Your task to perform on an android device: Show the shopping cart on newegg.com. Search for usb-a on newegg.com, select the first entry, and add it to the cart. Image 0: 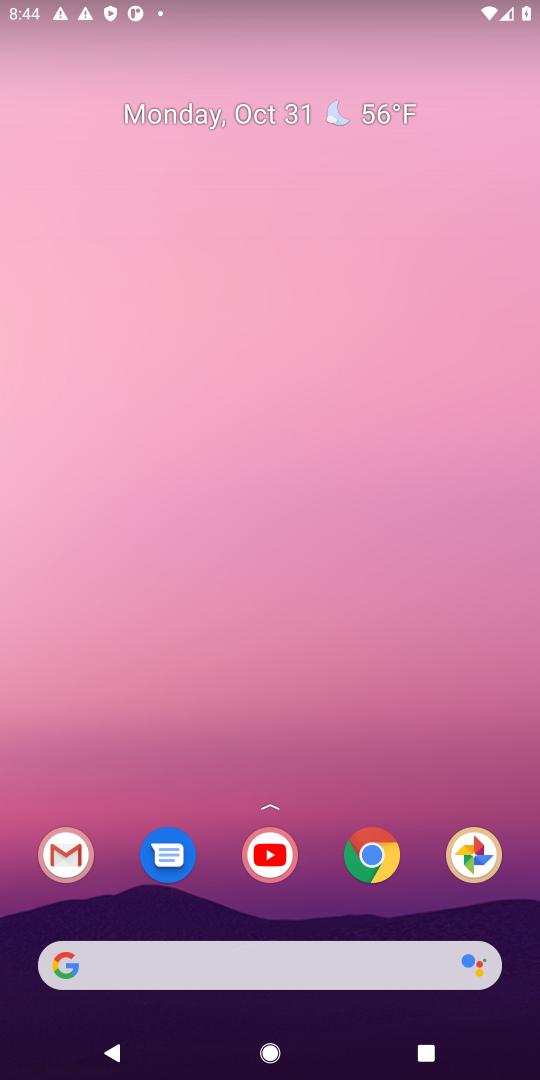
Step 0: press home button
Your task to perform on an android device: Show the shopping cart on newegg.com. Search for usb-a on newegg.com, select the first entry, and add it to the cart. Image 1: 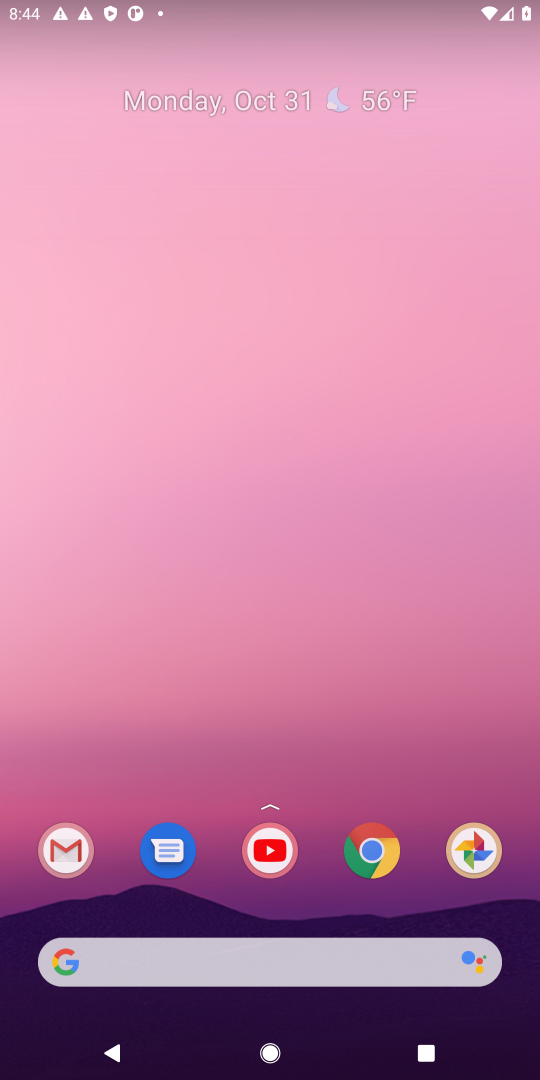
Step 1: click (276, 961)
Your task to perform on an android device: Show the shopping cart on newegg.com. Search for usb-a on newegg.com, select the first entry, and add it to the cart. Image 2: 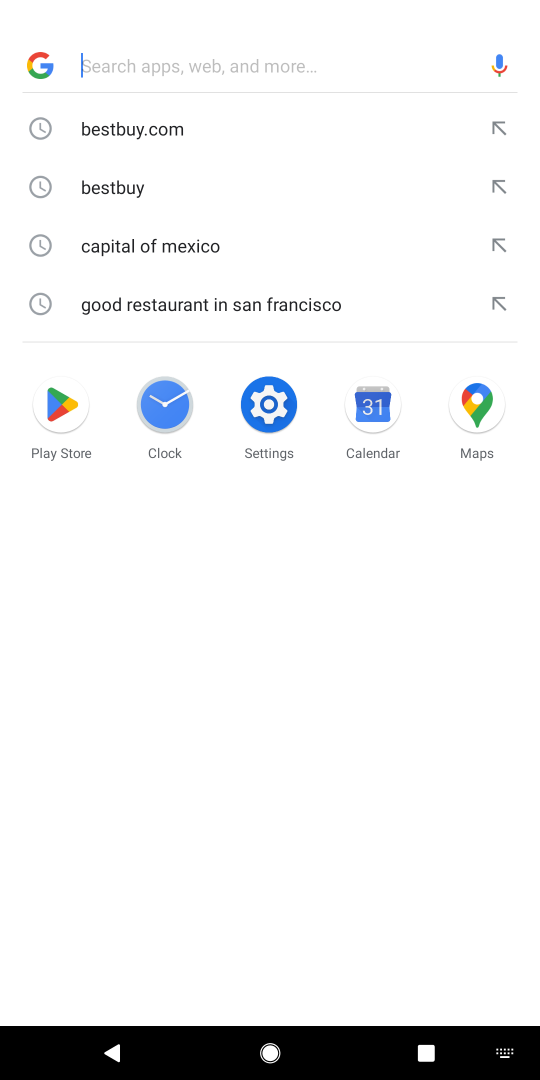
Step 2: type "newegg"
Your task to perform on an android device: Show the shopping cart on newegg.com. Search for usb-a on newegg.com, select the first entry, and add it to the cart. Image 3: 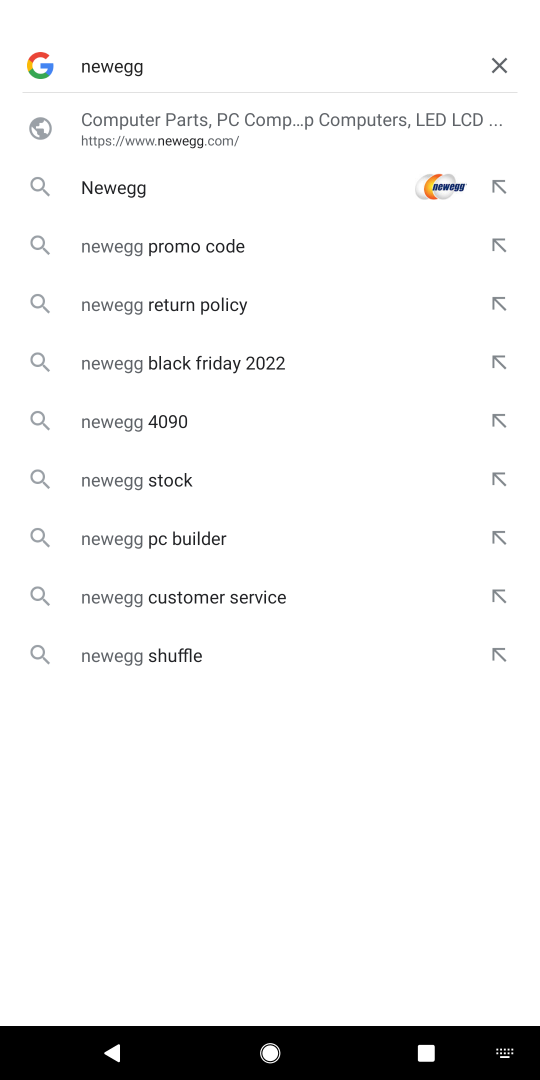
Step 3: click (170, 119)
Your task to perform on an android device: Show the shopping cart on newegg.com. Search for usb-a on newegg.com, select the first entry, and add it to the cart. Image 4: 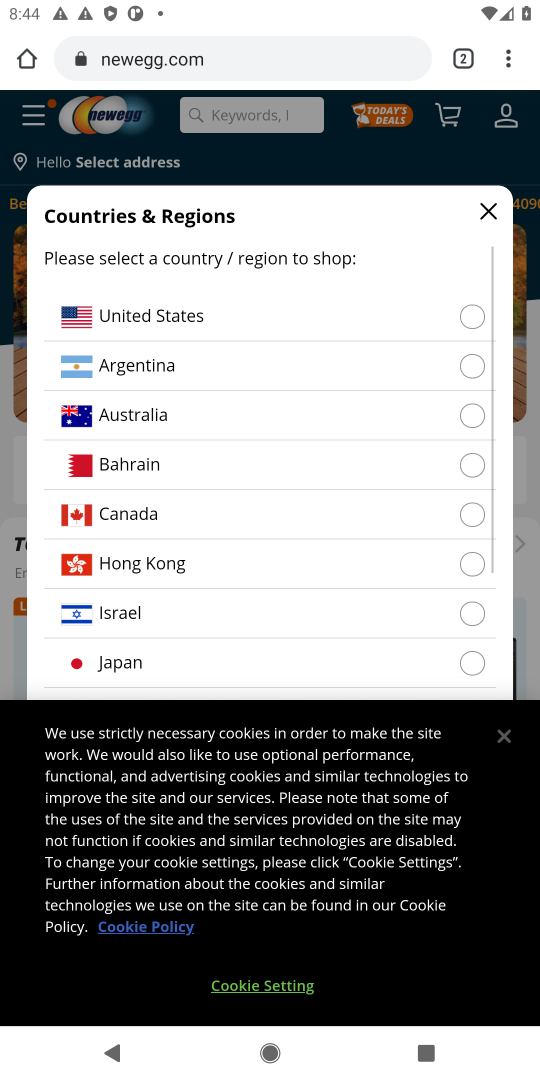
Step 4: click (233, 316)
Your task to perform on an android device: Show the shopping cart on newegg.com. Search for usb-a on newegg.com, select the first entry, and add it to the cart. Image 5: 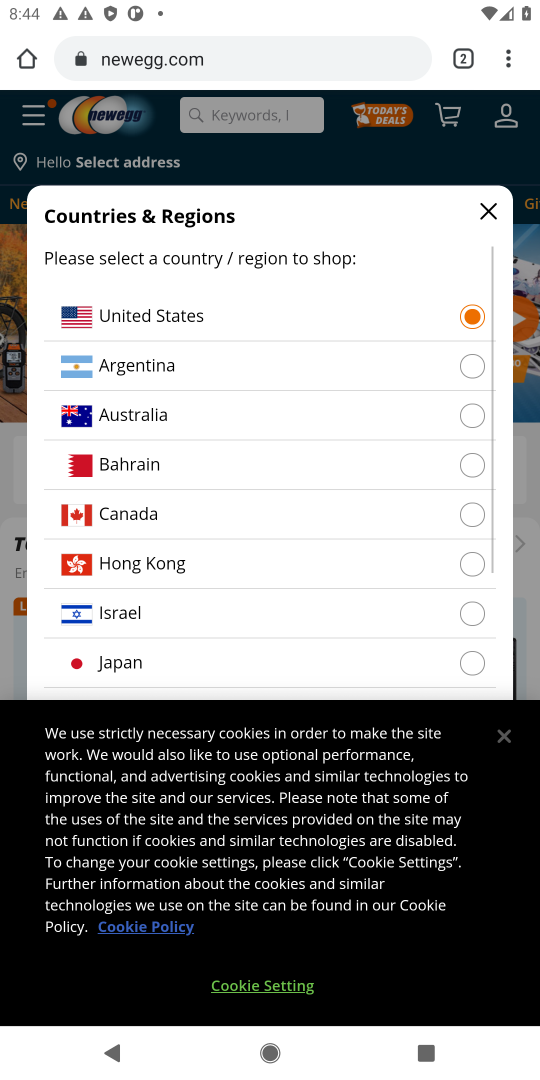
Step 5: click (503, 743)
Your task to perform on an android device: Show the shopping cart on newegg.com. Search for usb-a on newegg.com, select the first entry, and add it to the cart. Image 6: 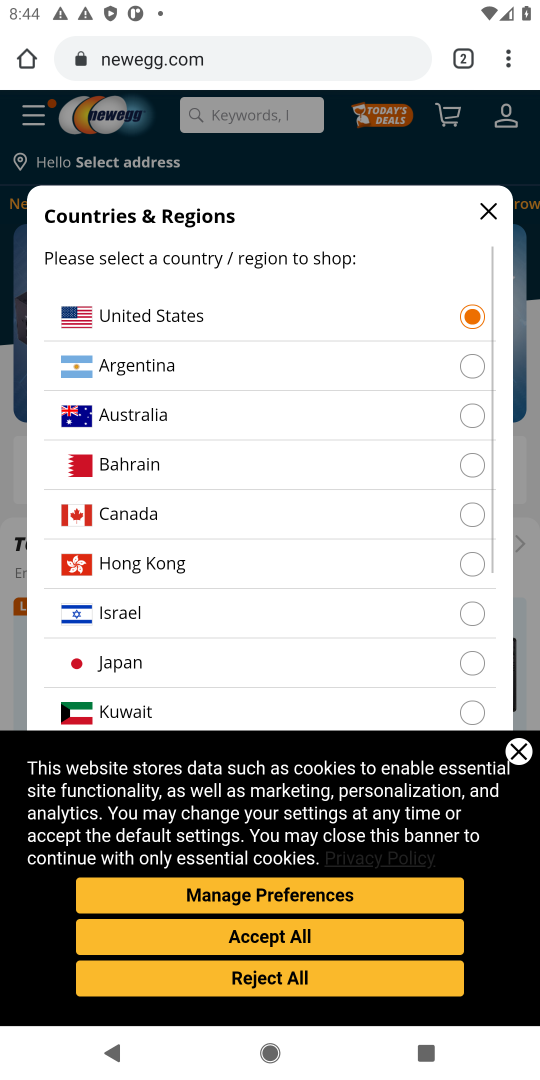
Step 6: click (262, 938)
Your task to perform on an android device: Show the shopping cart on newegg.com. Search for usb-a on newegg.com, select the first entry, and add it to the cart. Image 7: 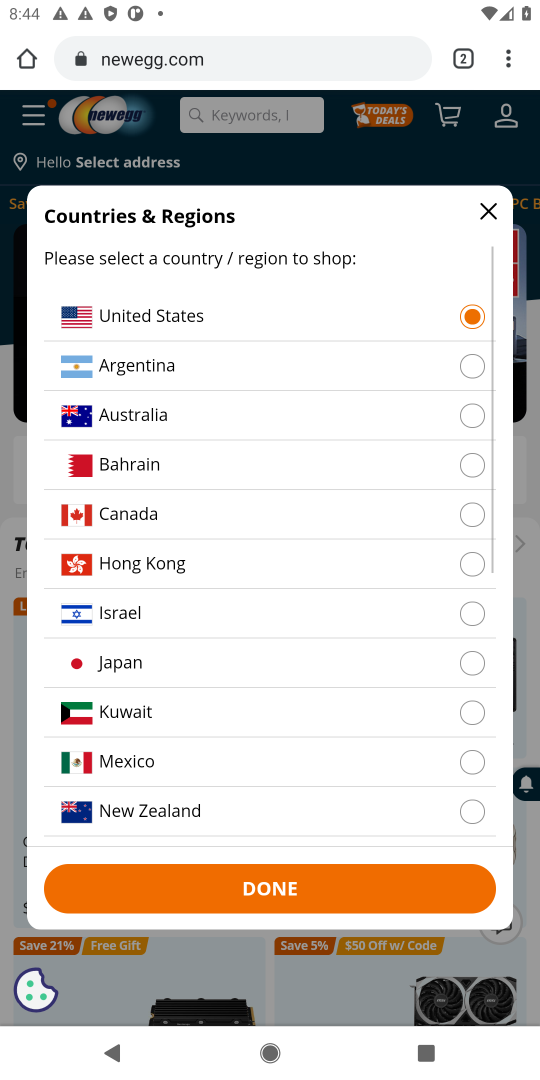
Step 7: click (264, 905)
Your task to perform on an android device: Show the shopping cart on newegg.com. Search for usb-a on newegg.com, select the first entry, and add it to the cart. Image 8: 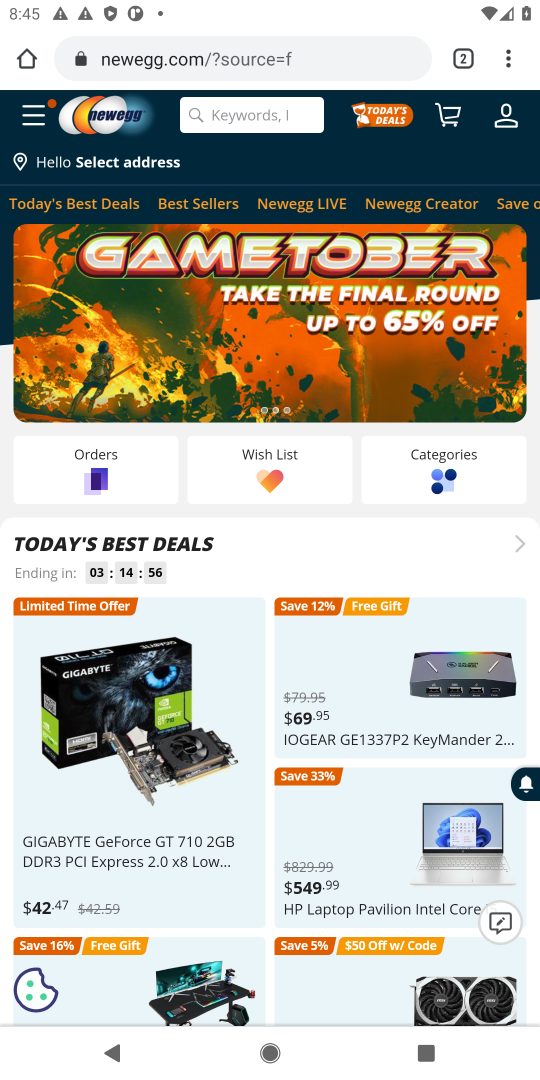
Step 8: click (253, 119)
Your task to perform on an android device: Show the shopping cart on newegg.com. Search for usb-a on newegg.com, select the first entry, and add it to the cart. Image 9: 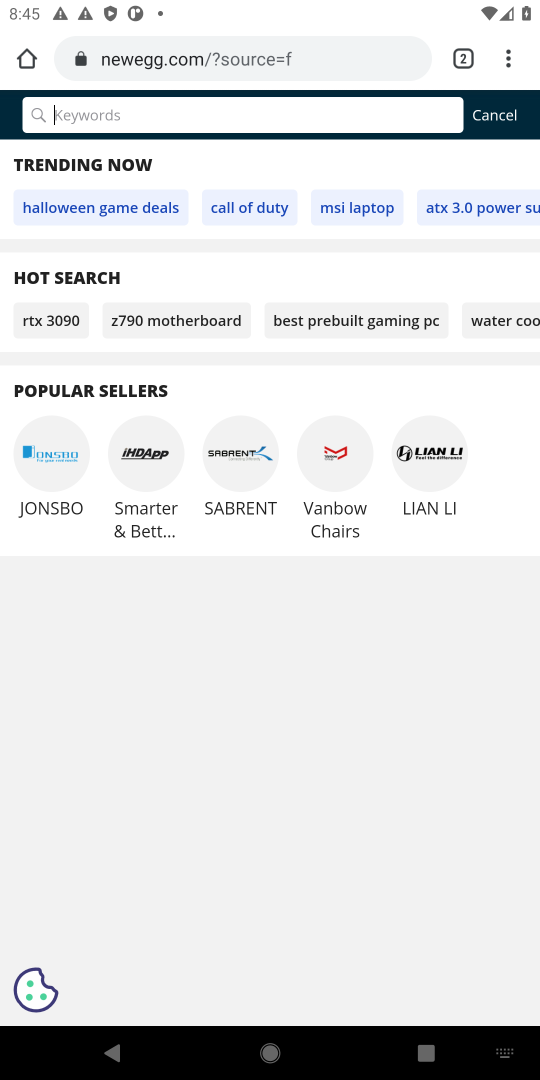
Step 9: type "usb-a"
Your task to perform on an android device: Show the shopping cart on newegg.com. Search for usb-a on newegg.com, select the first entry, and add it to the cart. Image 10: 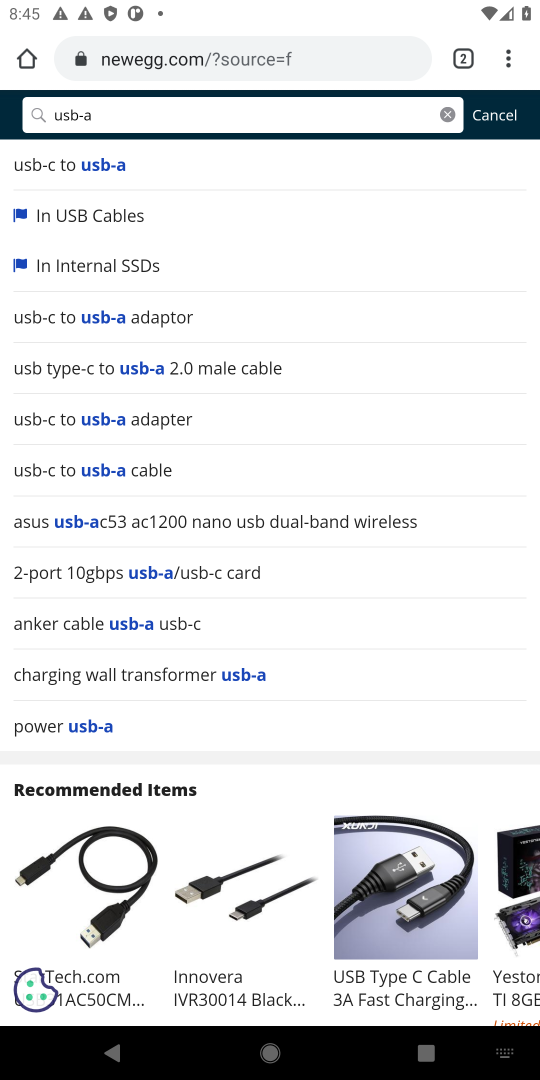
Step 10: click (75, 221)
Your task to perform on an android device: Show the shopping cart on newegg.com. Search for usb-a on newegg.com, select the first entry, and add it to the cart. Image 11: 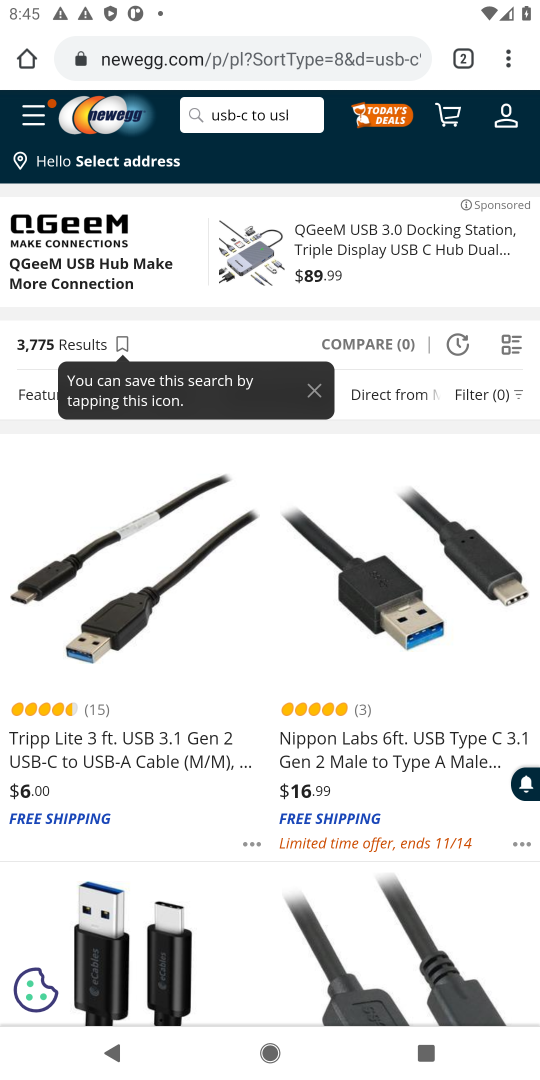
Step 11: click (83, 723)
Your task to perform on an android device: Show the shopping cart on newegg.com. Search for usb-a on newegg.com, select the first entry, and add it to the cart. Image 12: 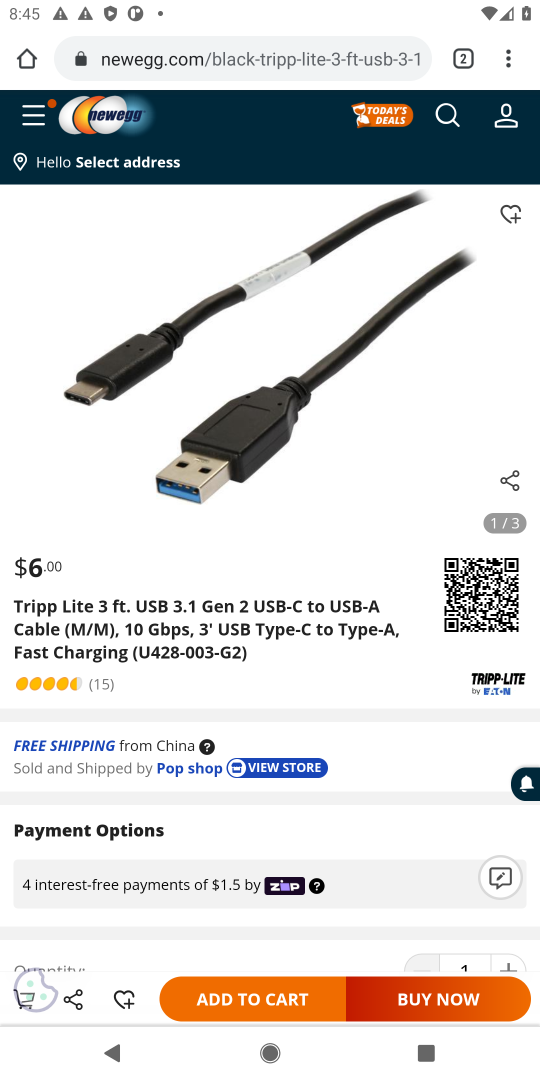
Step 12: click (243, 1004)
Your task to perform on an android device: Show the shopping cart on newegg.com. Search for usb-a on newegg.com, select the first entry, and add it to the cart. Image 13: 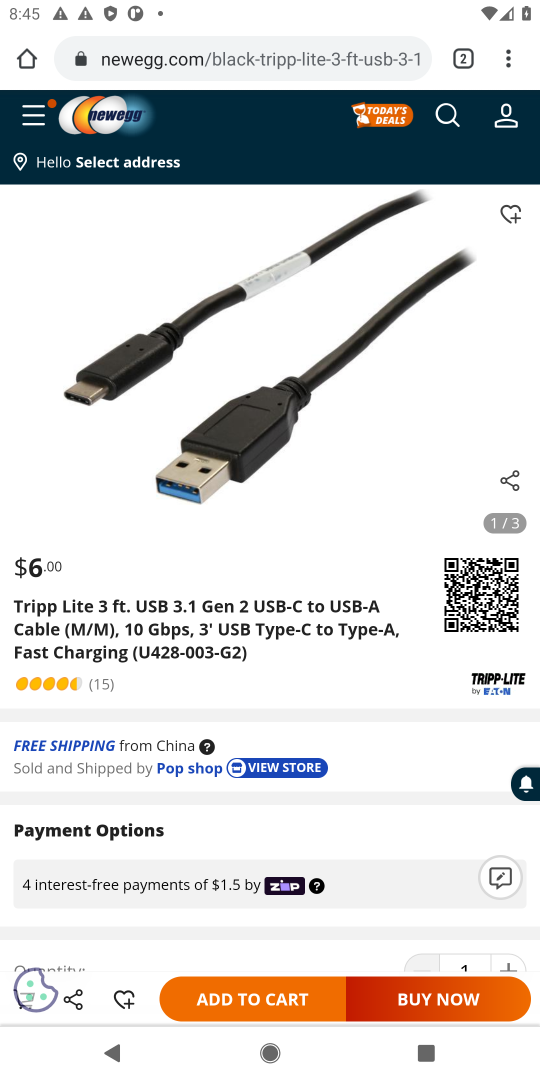
Step 13: task complete